Your task to perform on an android device: Open Google Chrome and click the shortcut for Amazon.com Image 0: 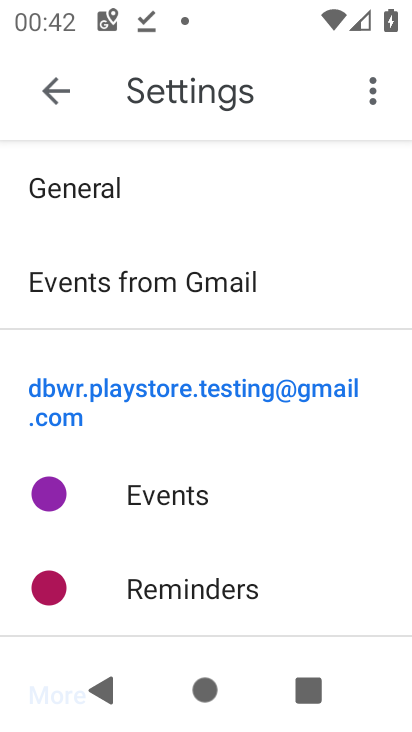
Step 0: press home button
Your task to perform on an android device: Open Google Chrome and click the shortcut for Amazon.com Image 1: 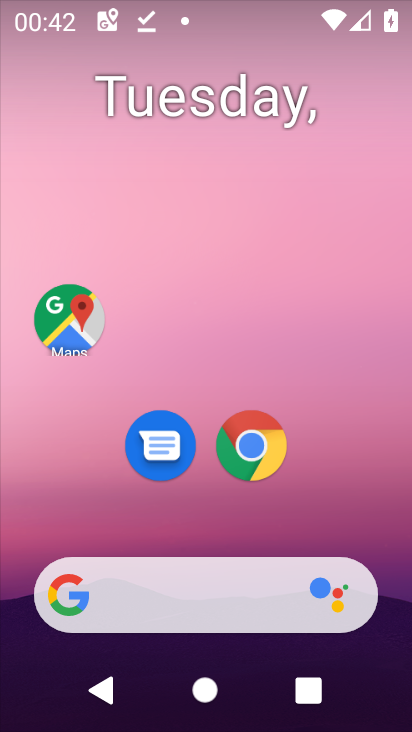
Step 1: drag from (334, 474) to (251, 54)
Your task to perform on an android device: Open Google Chrome and click the shortcut for Amazon.com Image 2: 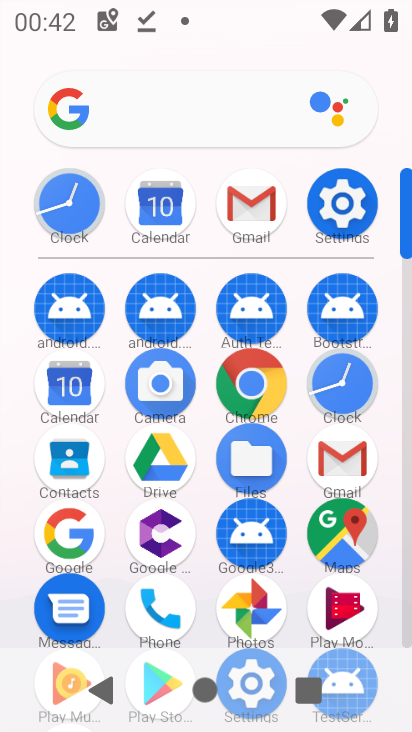
Step 2: click (251, 382)
Your task to perform on an android device: Open Google Chrome and click the shortcut for Amazon.com Image 3: 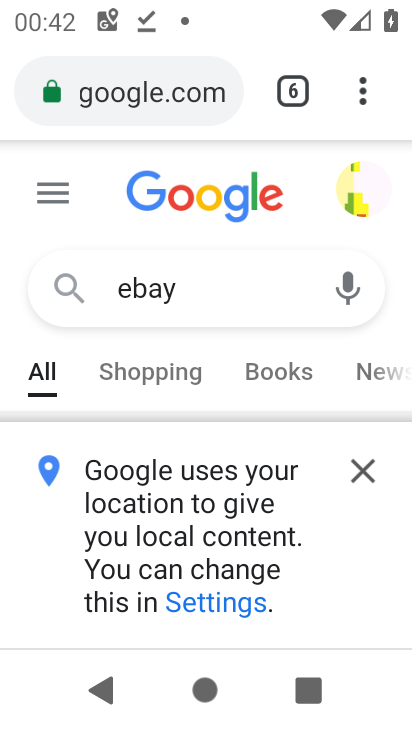
Step 3: click (361, 80)
Your task to perform on an android device: Open Google Chrome and click the shortcut for Amazon.com Image 4: 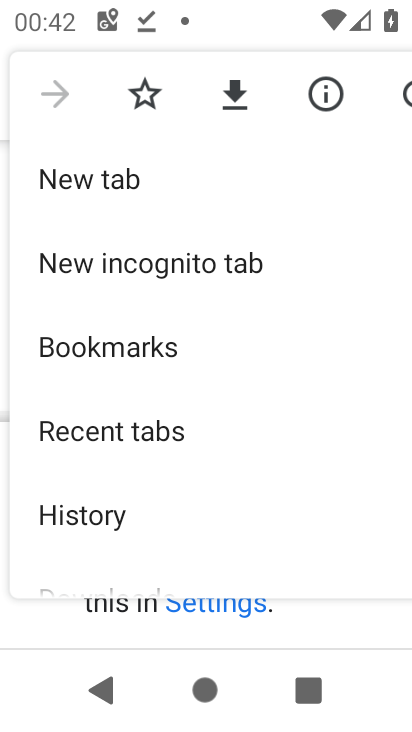
Step 4: click (109, 173)
Your task to perform on an android device: Open Google Chrome and click the shortcut for Amazon.com Image 5: 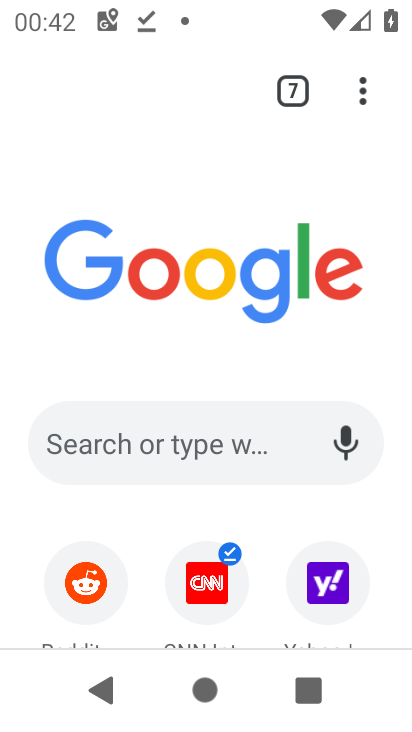
Step 5: task complete